Your task to perform on an android device: turn off location Image 0: 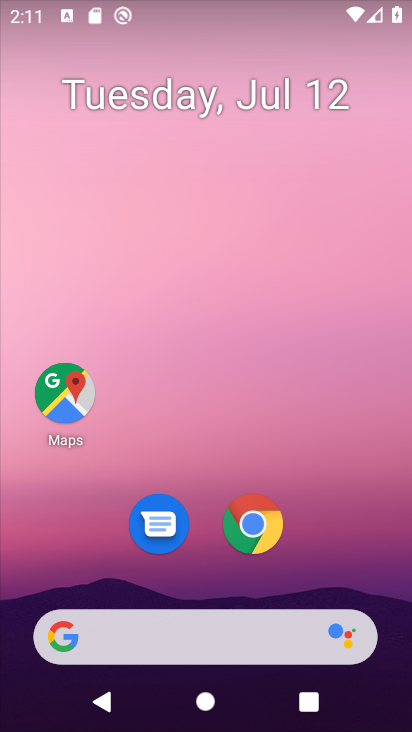
Step 0: drag from (340, 522) to (340, 36)
Your task to perform on an android device: turn off location Image 1: 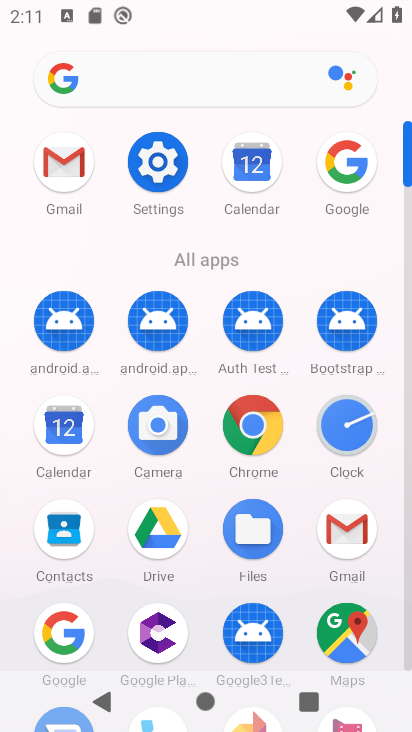
Step 1: click (164, 169)
Your task to perform on an android device: turn off location Image 2: 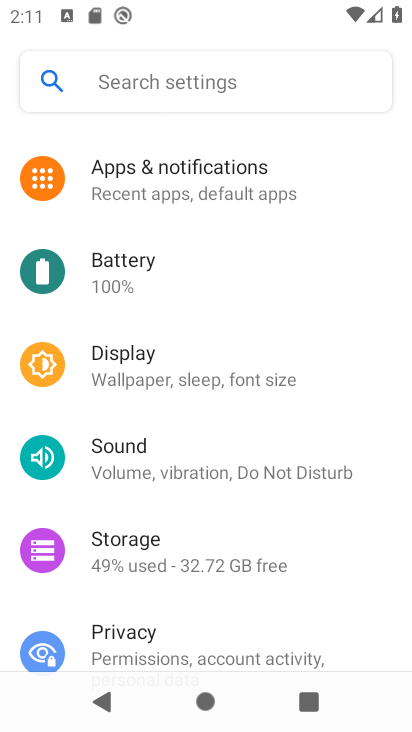
Step 2: drag from (226, 593) to (260, 178)
Your task to perform on an android device: turn off location Image 3: 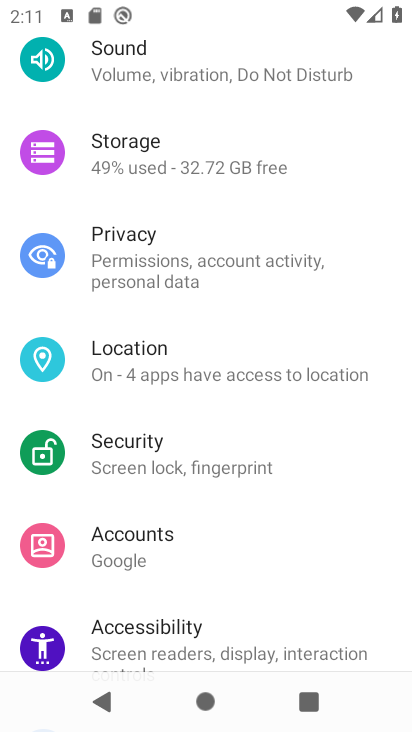
Step 3: click (223, 369)
Your task to perform on an android device: turn off location Image 4: 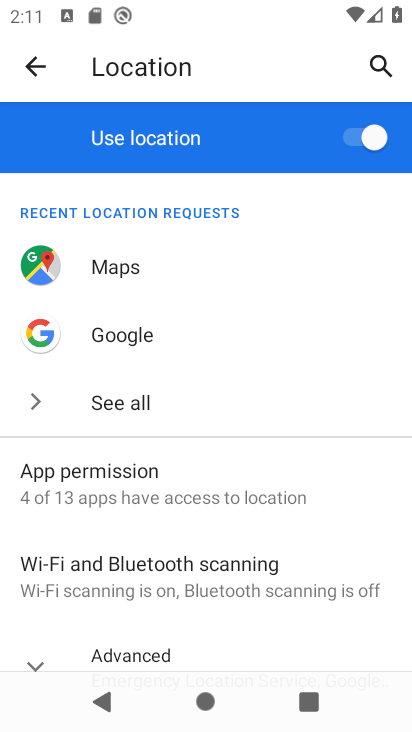
Step 4: click (365, 137)
Your task to perform on an android device: turn off location Image 5: 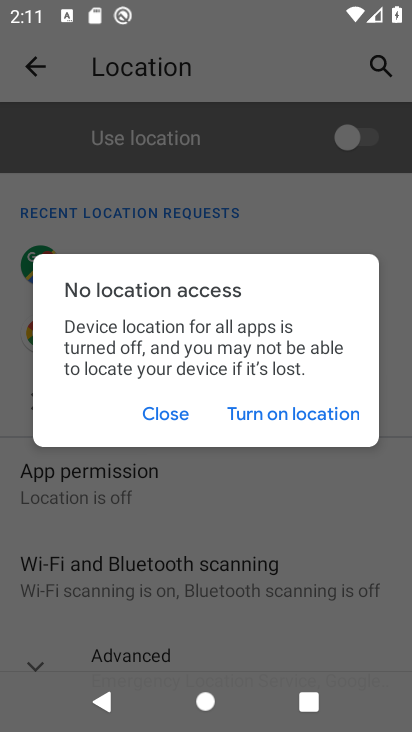
Step 5: click (170, 408)
Your task to perform on an android device: turn off location Image 6: 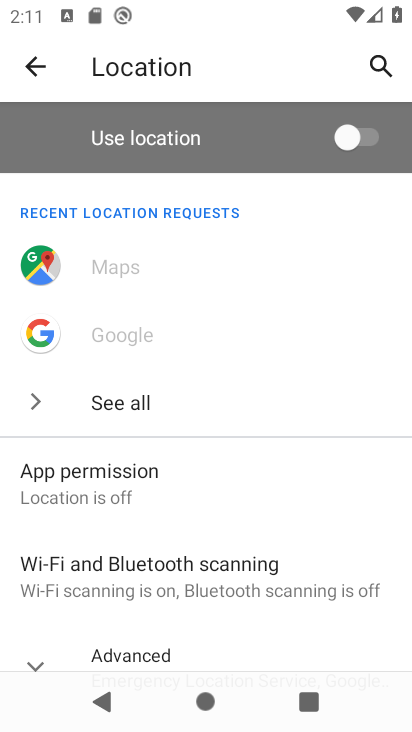
Step 6: task complete